Your task to perform on an android device: Do I have any events today? Image 0: 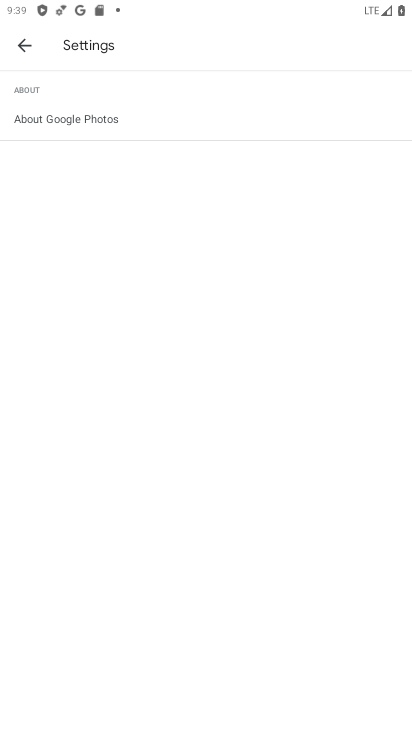
Step 0: press home button
Your task to perform on an android device: Do I have any events today? Image 1: 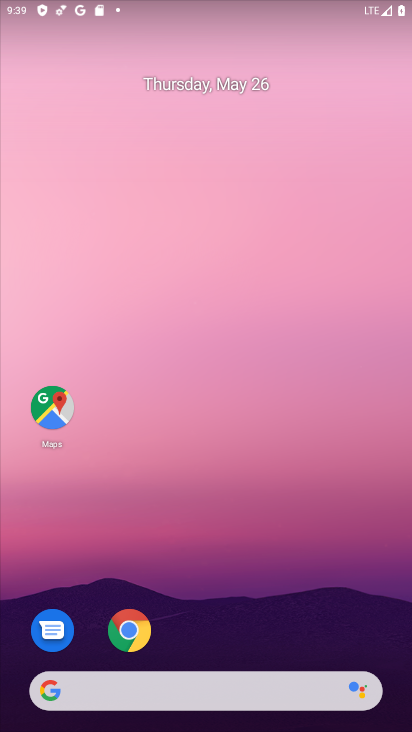
Step 1: drag from (193, 654) to (255, 177)
Your task to perform on an android device: Do I have any events today? Image 2: 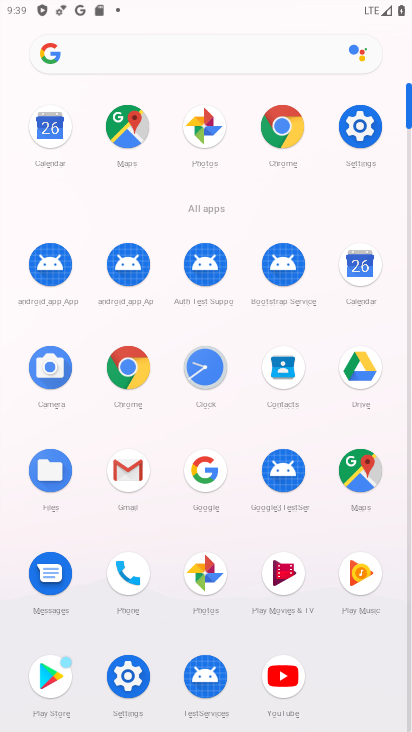
Step 2: click (362, 267)
Your task to perform on an android device: Do I have any events today? Image 3: 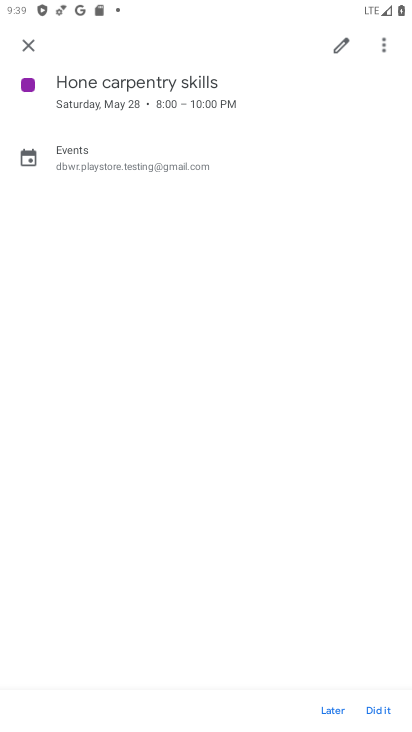
Step 3: click (21, 49)
Your task to perform on an android device: Do I have any events today? Image 4: 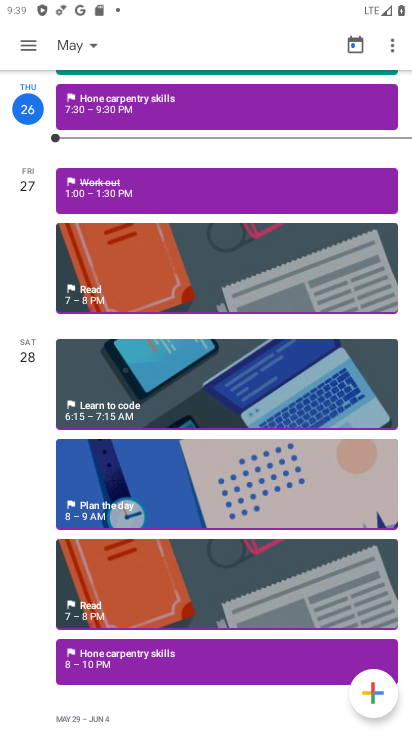
Step 4: click (24, 90)
Your task to perform on an android device: Do I have any events today? Image 5: 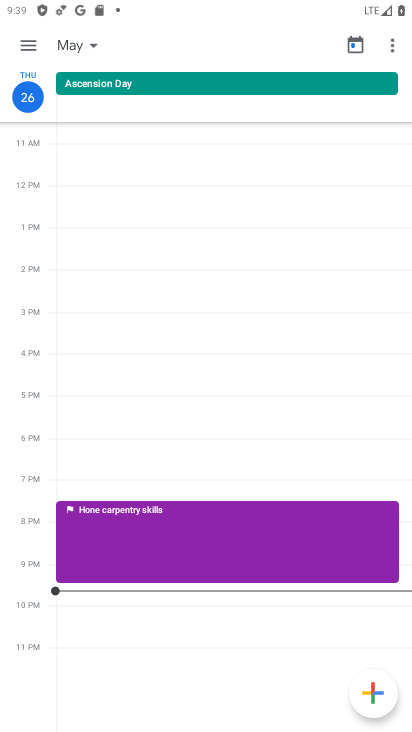
Step 5: task complete